Your task to perform on an android device: Go to Google maps Image 0: 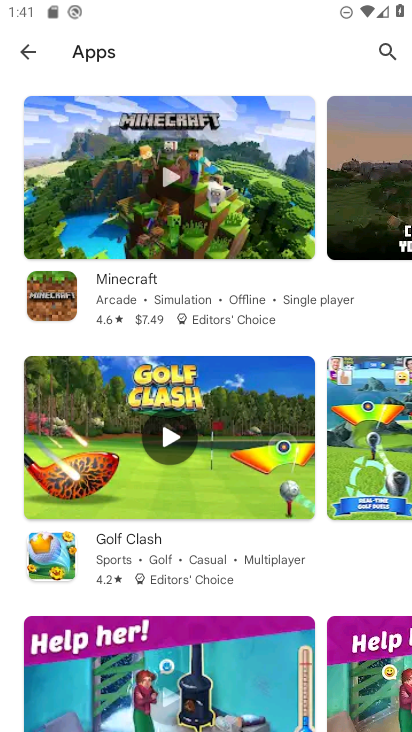
Step 0: press home button
Your task to perform on an android device: Go to Google maps Image 1: 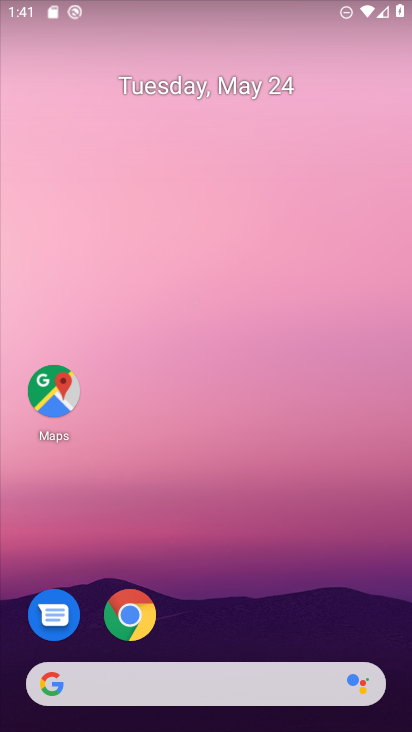
Step 1: click (65, 383)
Your task to perform on an android device: Go to Google maps Image 2: 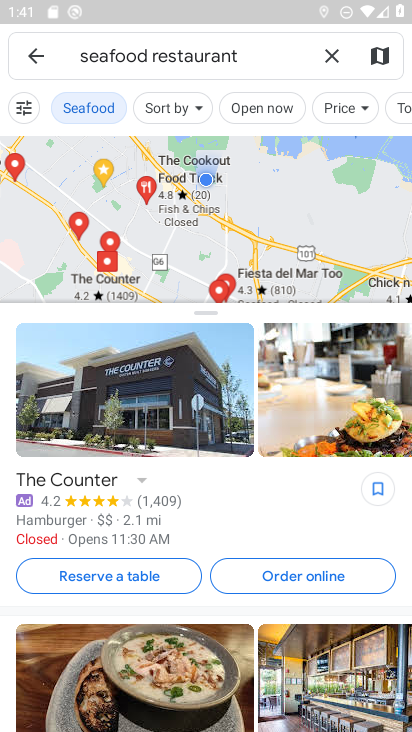
Step 2: task complete